Your task to perform on an android device: see creations saved in the google photos Image 0: 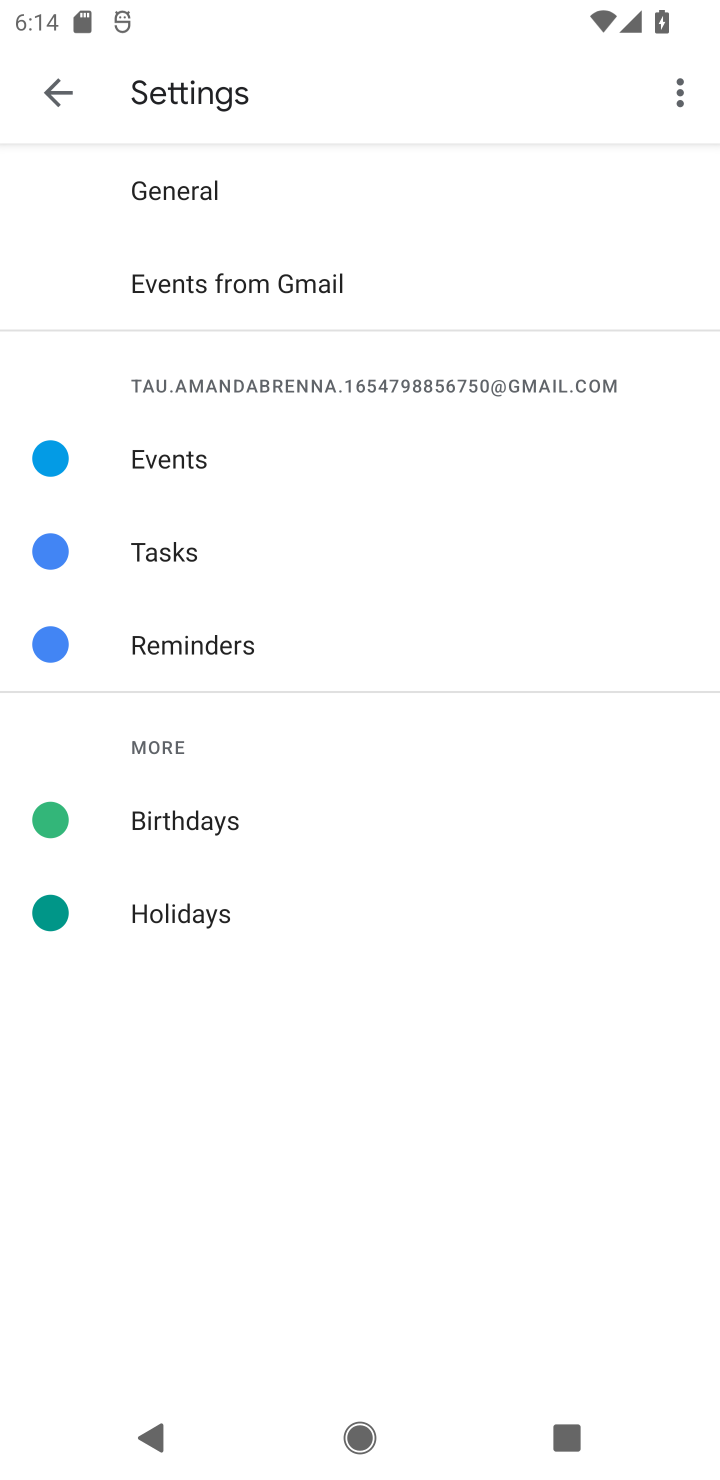
Step 0: task complete